Your task to perform on an android device: move a message to another label in the gmail app Image 0: 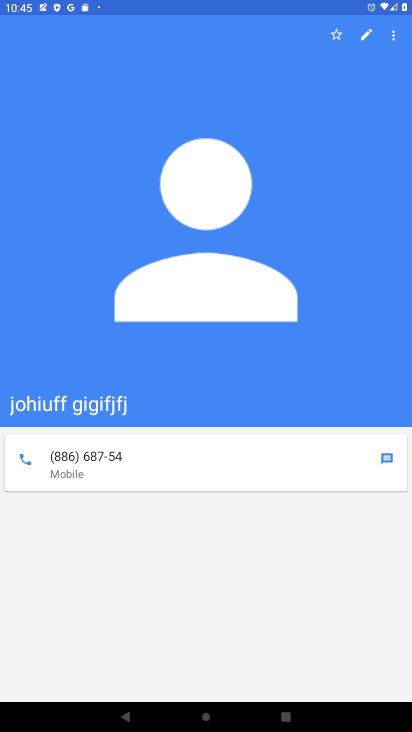
Step 0: press home button
Your task to perform on an android device: move a message to another label in the gmail app Image 1: 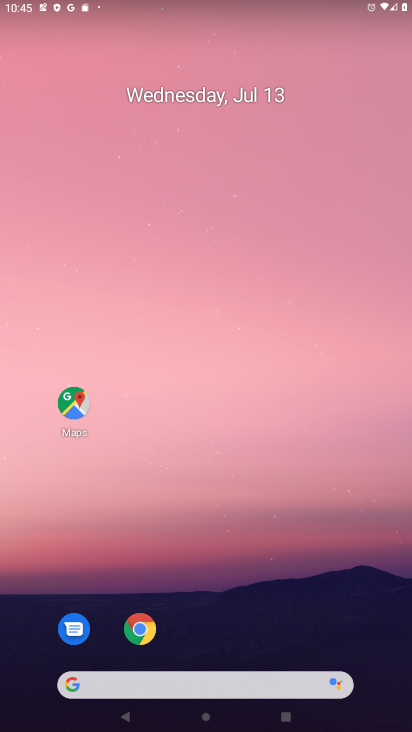
Step 1: drag from (241, 644) to (228, 369)
Your task to perform on an android device: move a message to another label in the gmail app Image 2: 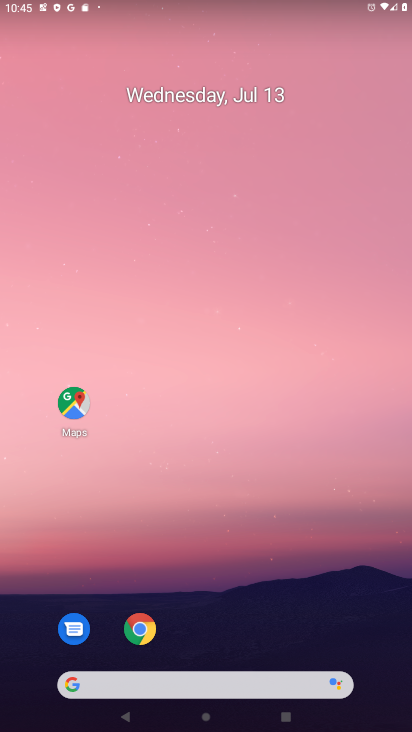
Step 2: drag from (272, 618) to (234, 149)
Your task to perform on an android device: move a message to another label in the gmail app Image 3: 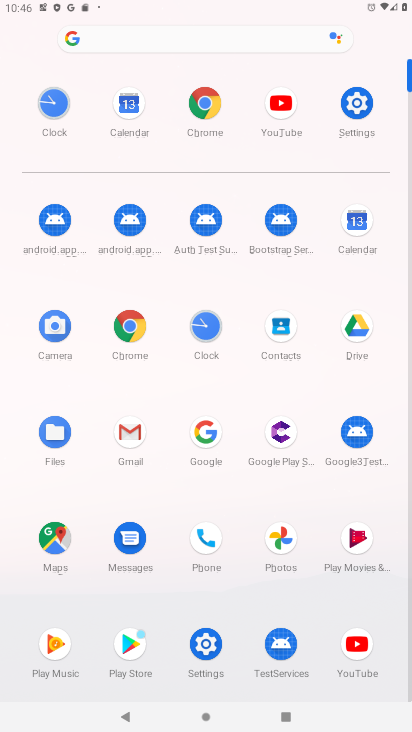
Step 3: click (138, 435)
Your task to perform on an android device: move a message to another label in the gmail app Image 4: 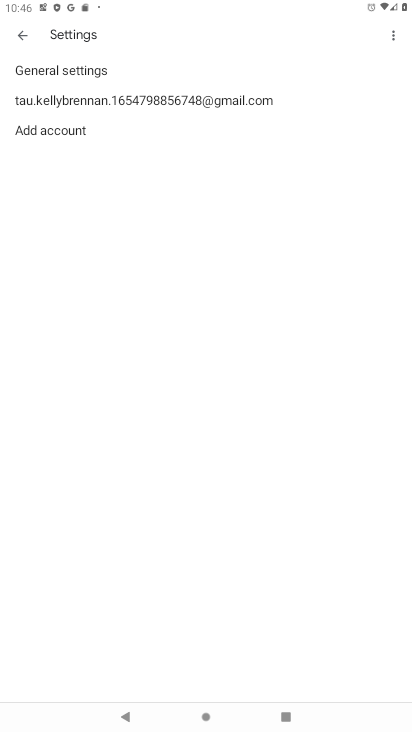
Step 4: click (20, 37)
Your task to perform on an android device: move a message to another label in the gmail app Image 5: 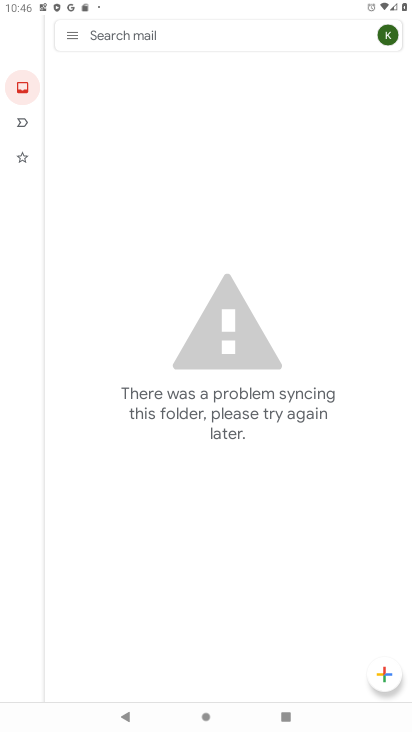
Step 5: click (64, 50)
Your task to perform on an android device: move a message to another label in the gmail app Image 6: 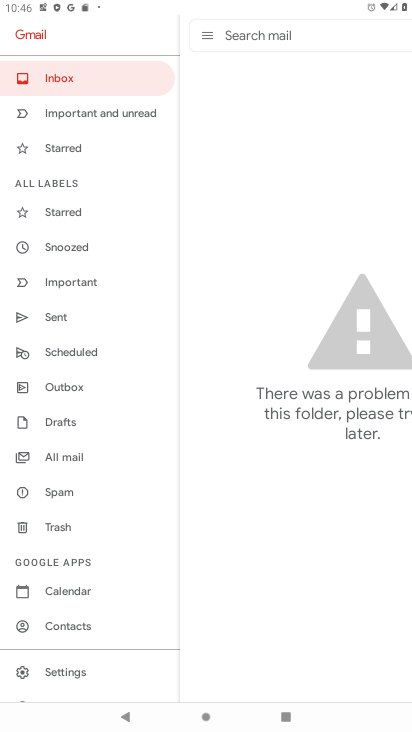
Step 6: click (74, 459)
Your task to perform on an android device: move a message to another label in the gmail app Image 7: 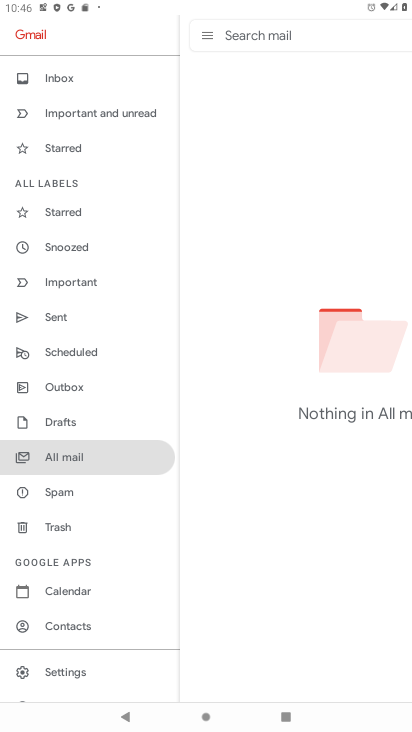
Step 7: task complete